Your task to perform on an android device: open wifi settings Image 0: 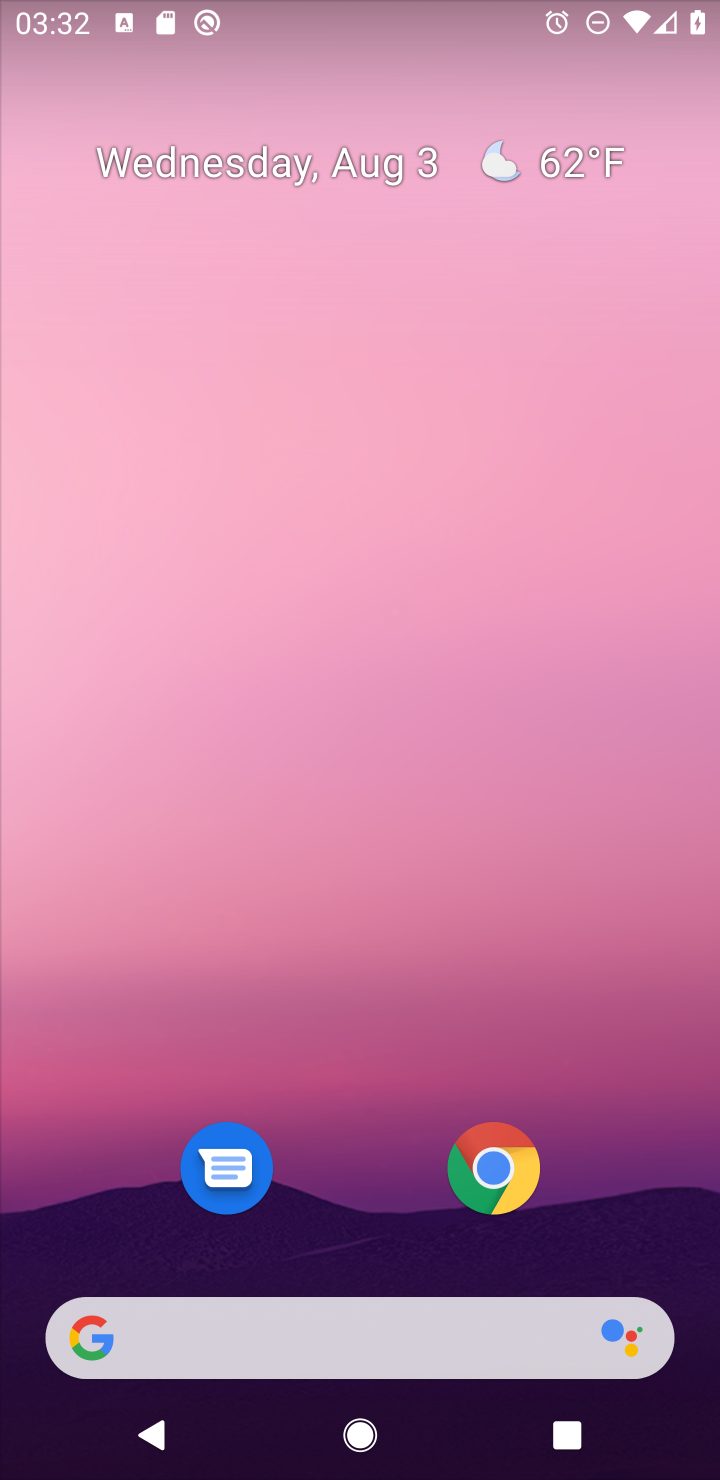
Step 0: drag from (653, 1133) to (564, 288)
Your task to perform on an android device: open wifi settings Image 1: 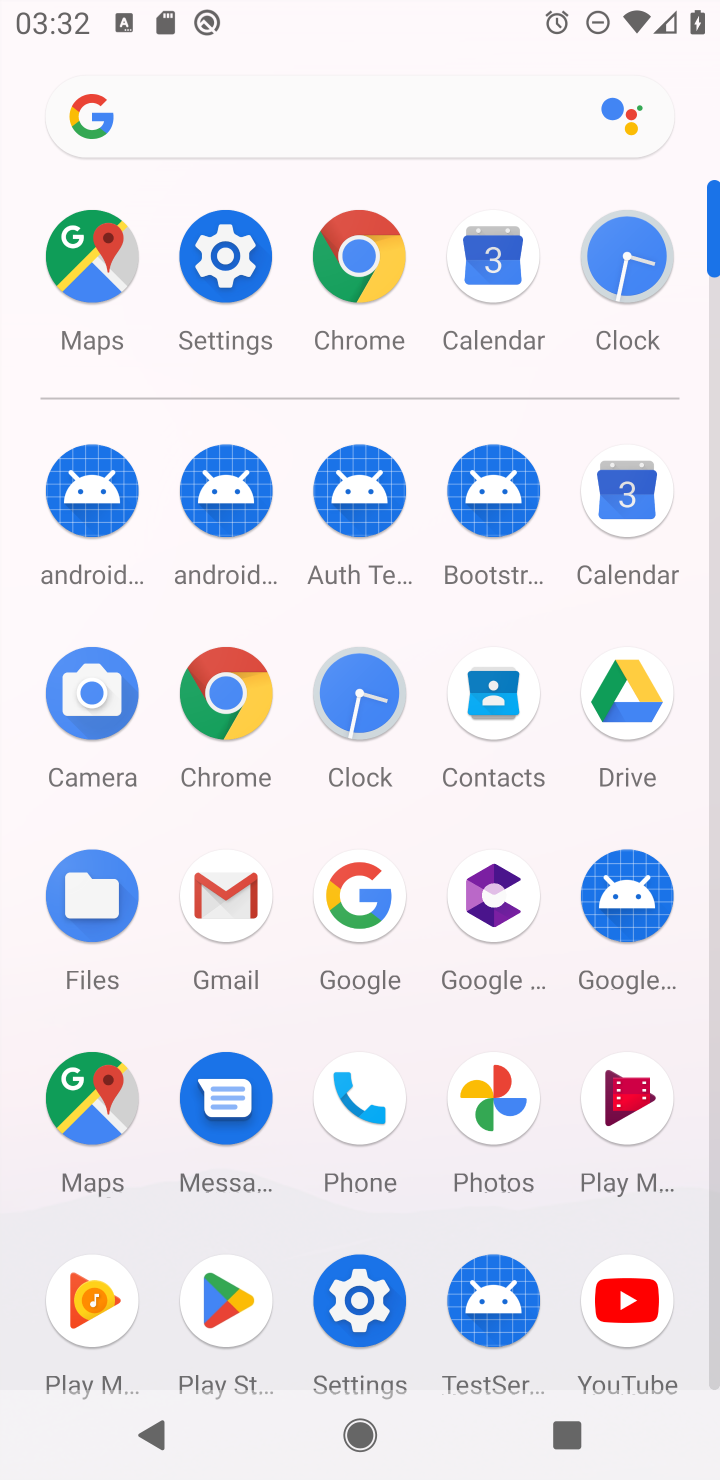
Step 1: click (362, 1307)
Your task to perform on an android device: open wifi settings Image 2: 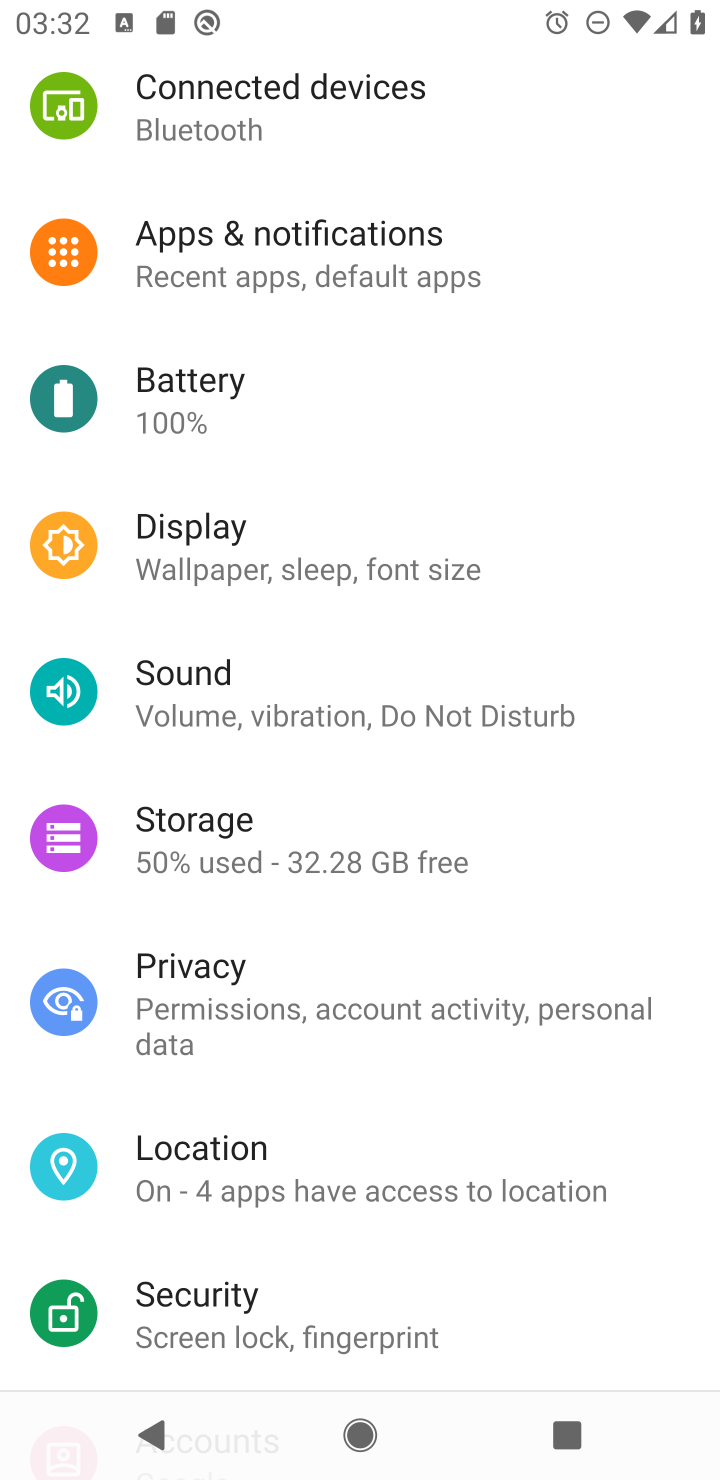
Step 2: drag from (589, 358) to (606, 821)
Your task to perform on an android device: open wifi settings Image 3: 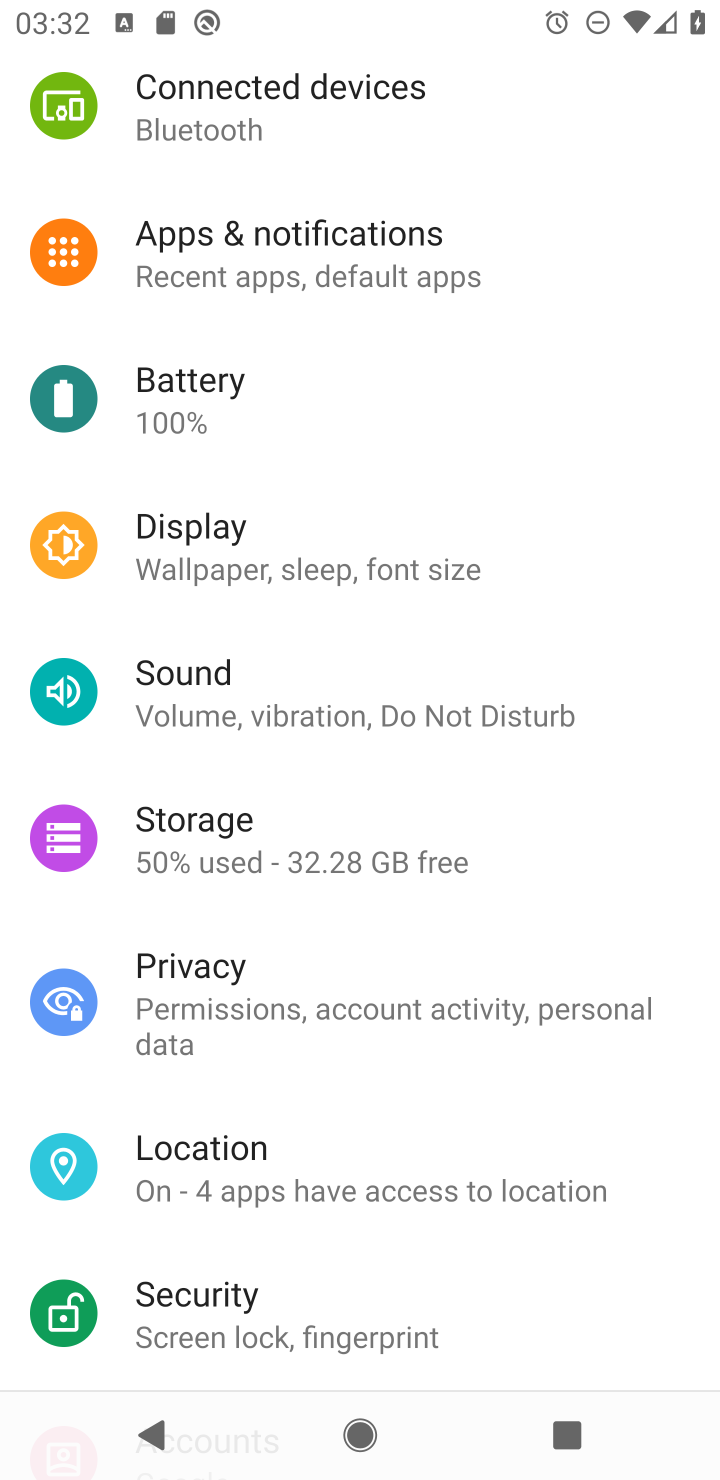
Step 3: drag from (563, 295) to (701, 913)
Your task to perform on an android device: open wifi settings Image 4: 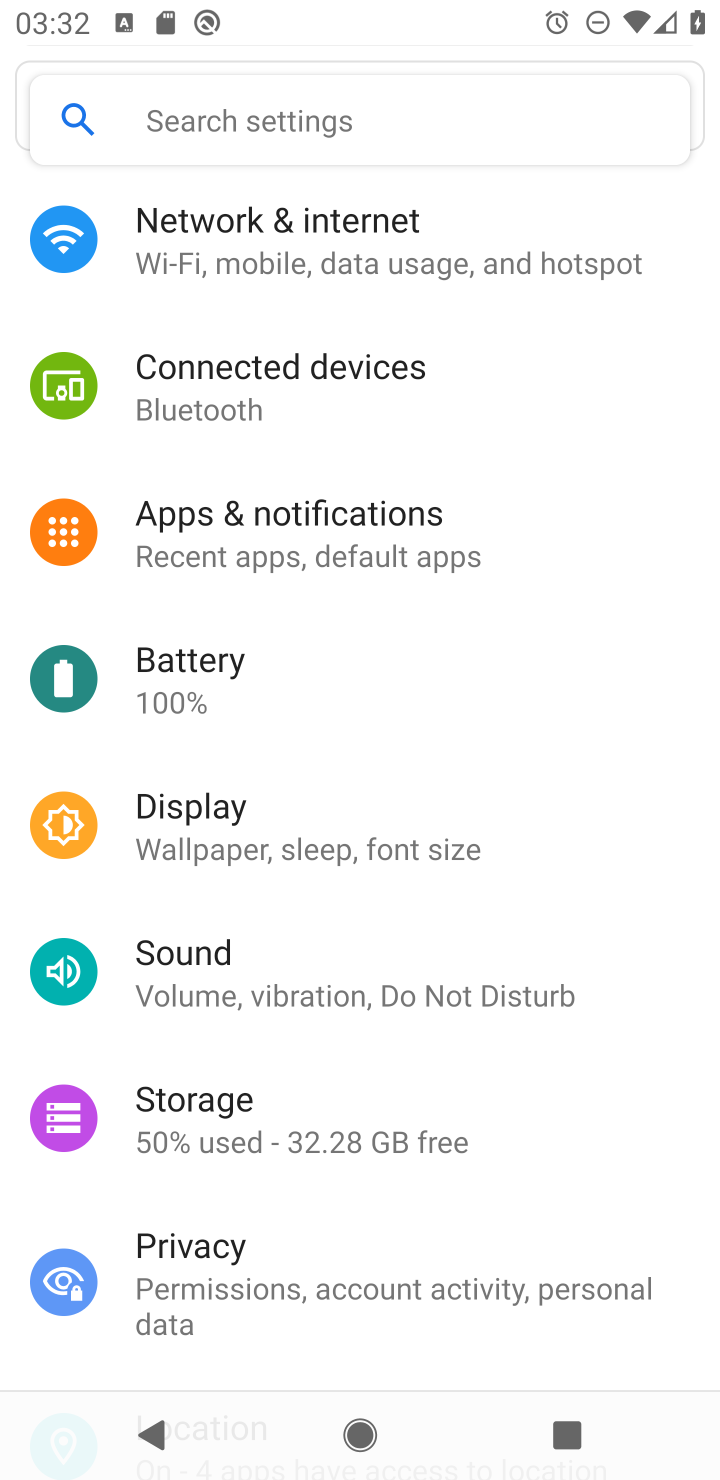
Step 4: click (235, 228)
Your task to perform on an android device: open wifi settings Image 5: 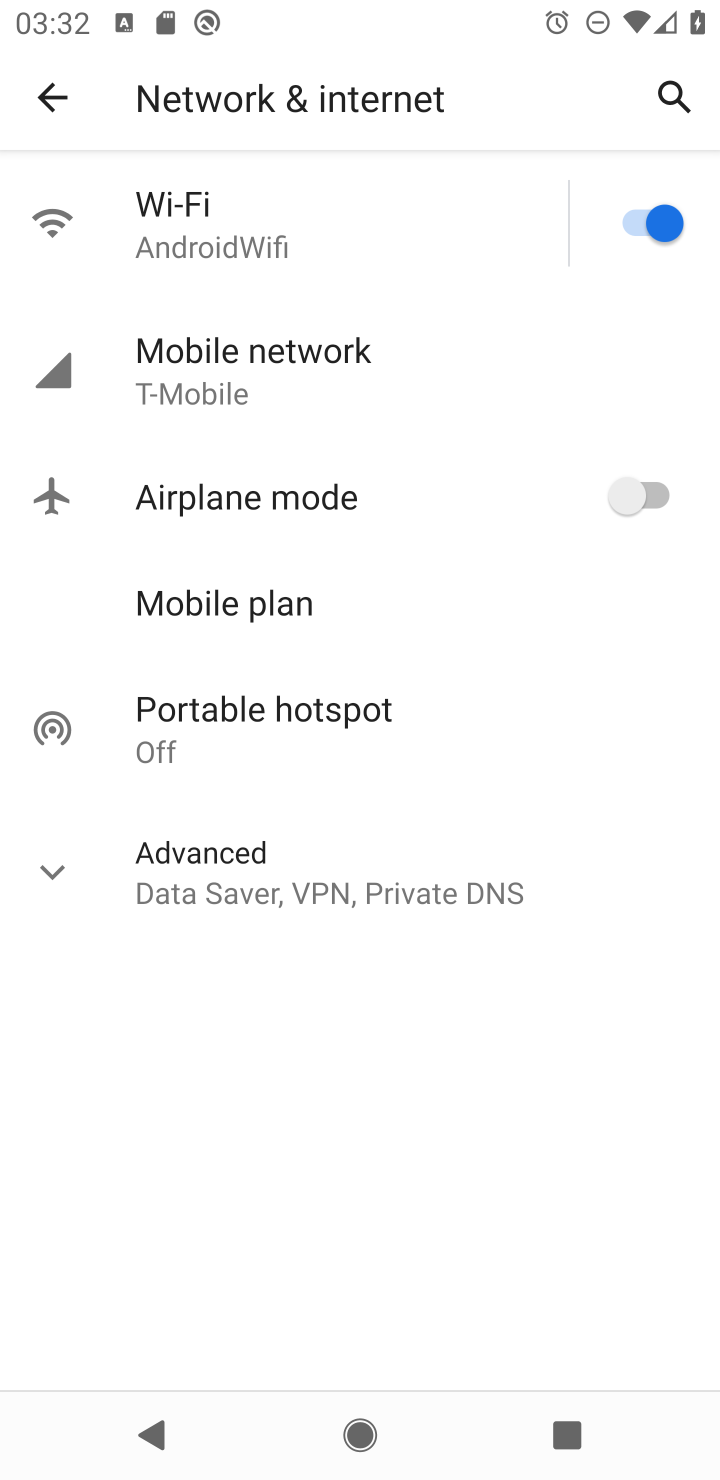
Step 5: click (178, 227)
Your task to perform on an android device: open wifi settings Image 6: 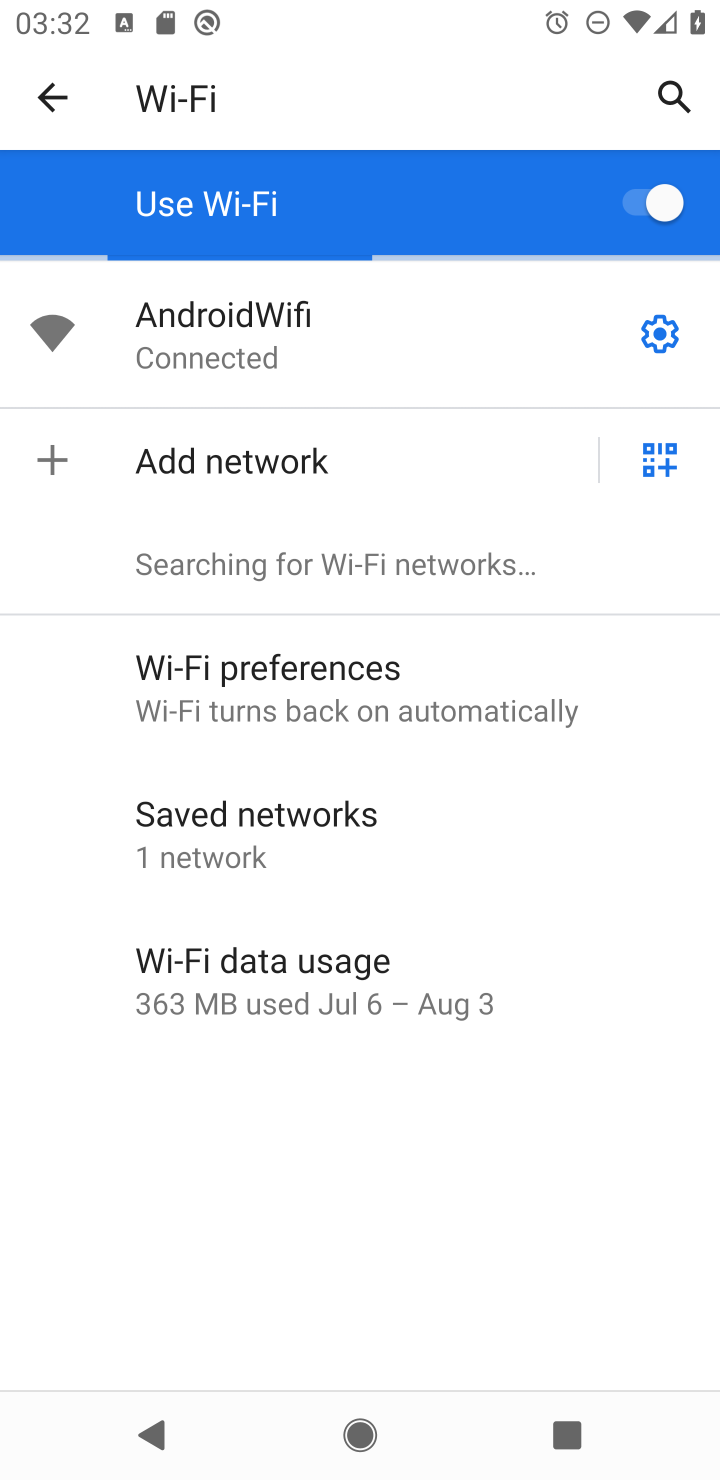
Step 6: click (654, 338)
Your task to perform on an android device: open wifi settings Image 7: 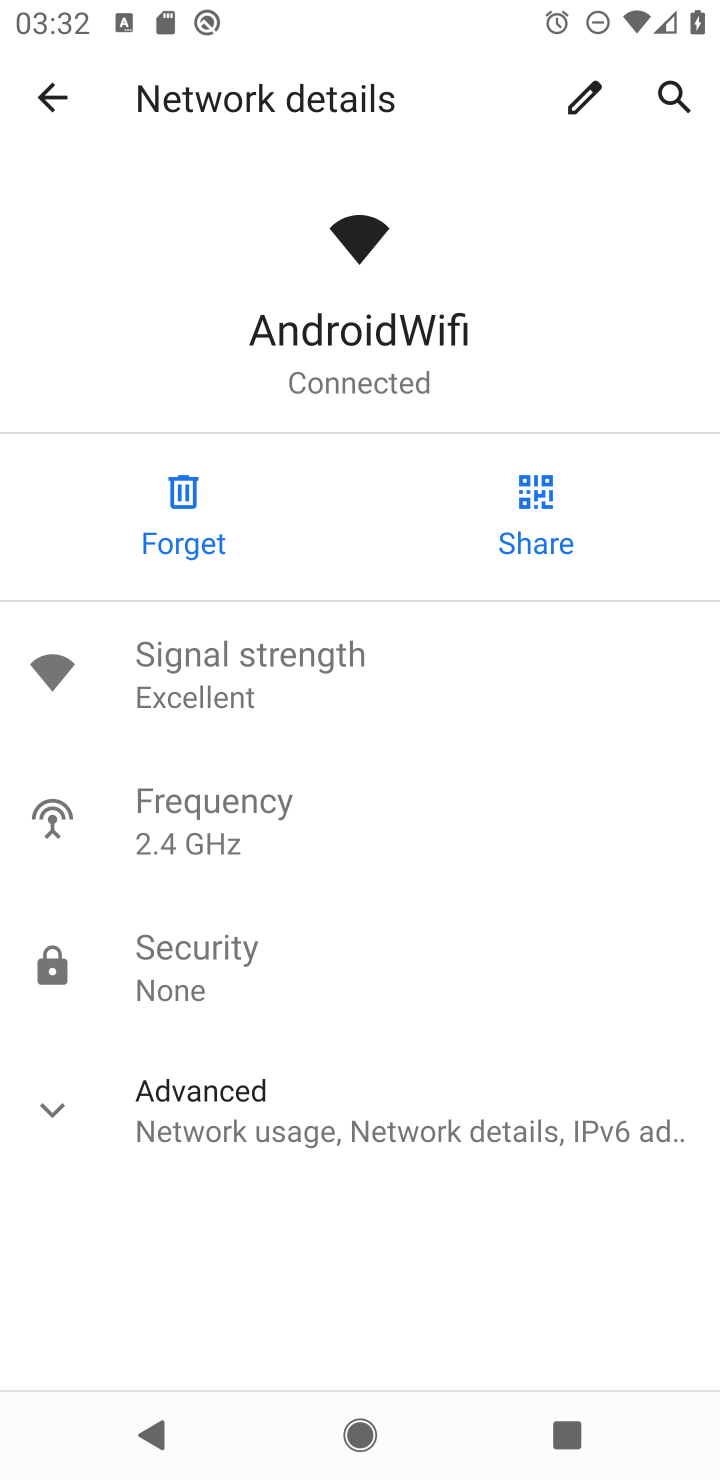
Step 7: task complete